Your task to perform on an android device: What is the news today? Image 0: 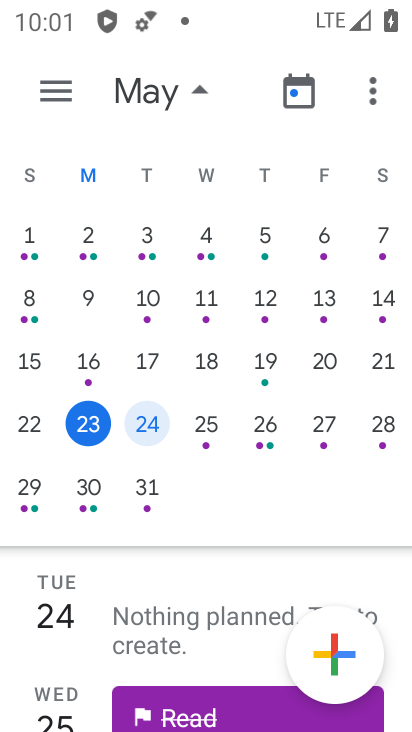
Step 0: press home button
Your task to perform on an android device: What is the news today? Image 1: 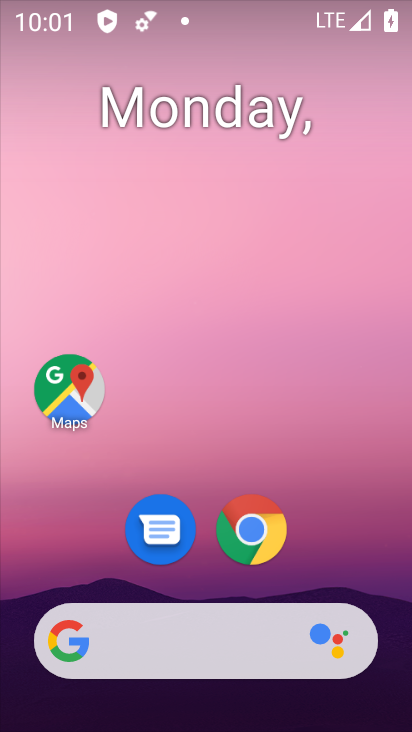
Step 1: click (142, 655)
Your task to perform on an android device: What is the news today? Image 2: 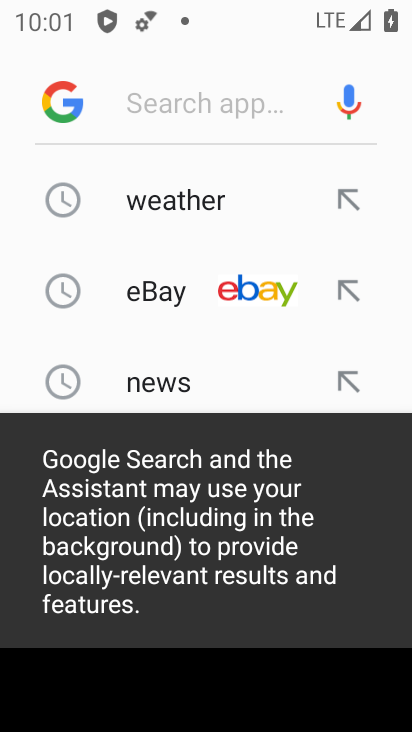
Step 2: click (110, 382)
Your task to perform on an android device: What is the news today? Image 3: 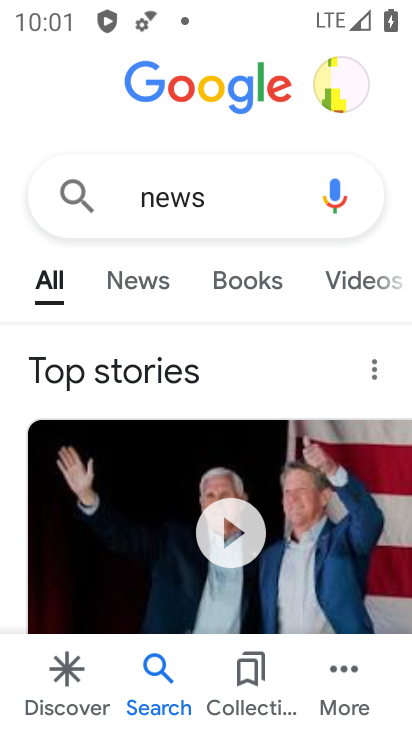
Step 3: task complete